Your task to perform on an android device: toggle show notifications on the lock screen Image 0: 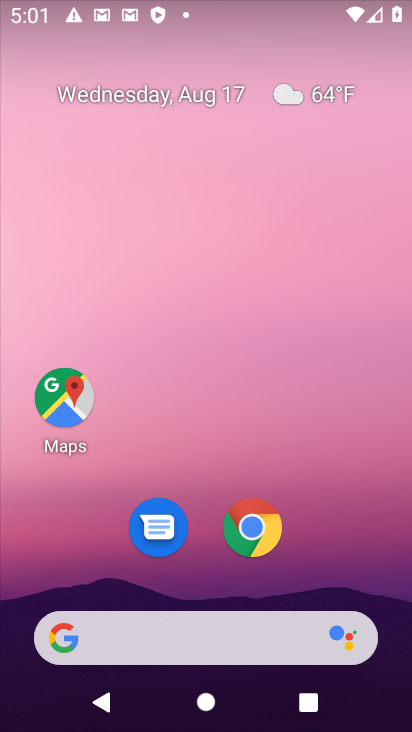
Step 0: drag from (172, 576) to (154, 181)
Your task to perform on an android device: toggle show notifications on the lock screen Image 1: 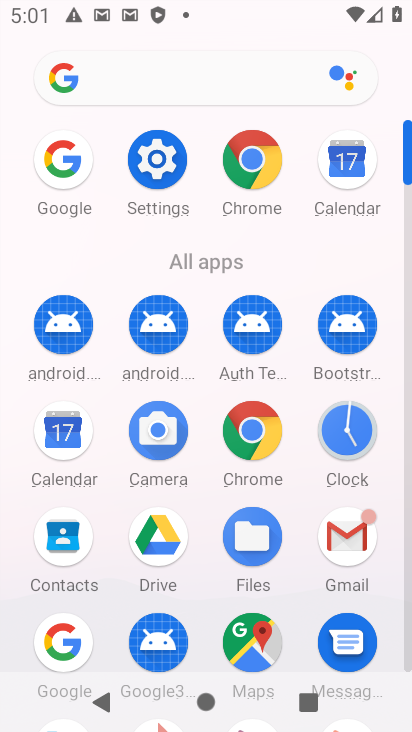
Step 1: click (156, 154)
Your task to perform on an android device: toggle show notifications on the lock screen Image 2: 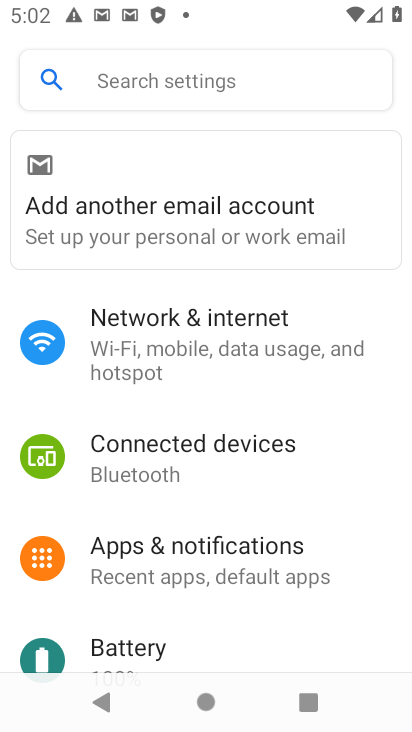
Step 2: drag from (139, 642) to (80, 333)
Your task to perform on an android device: toggle show notifications on the lock screen Image 3: 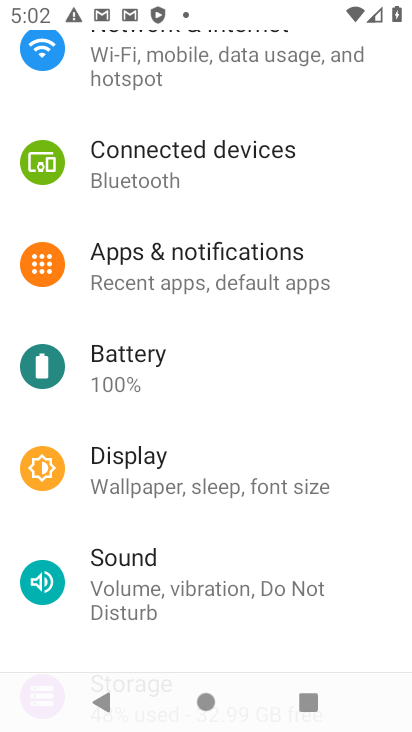
Step 3: drag from (89, 643) to (85, 294)
Your task to perform on an android device: toggle show notifications on the lock screen Image 4: 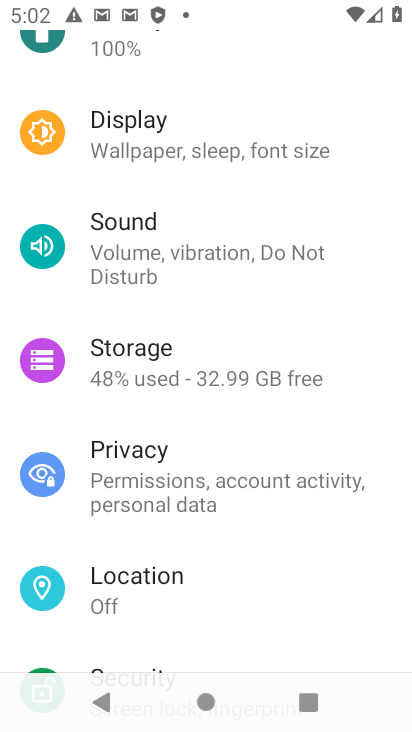
Step 4: drag from (150, 604) to (142, 339)
Your task to perform on an android device: toggle show notifications on the lock screen Image 5: 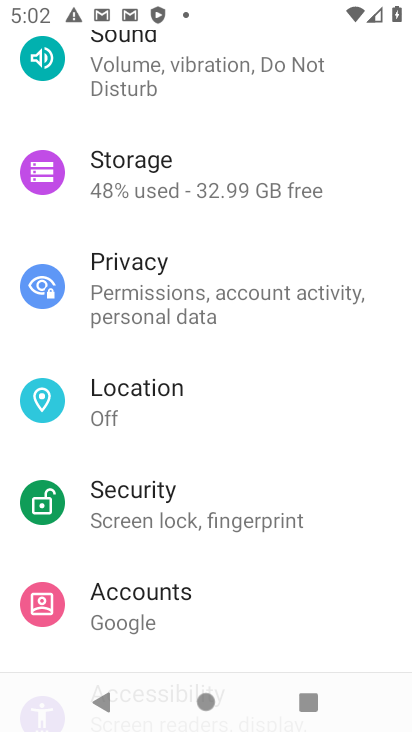
Step 5: click (146, 278)
Your task to perform on an android device: toggle show notifications on the lock screen Image 6: 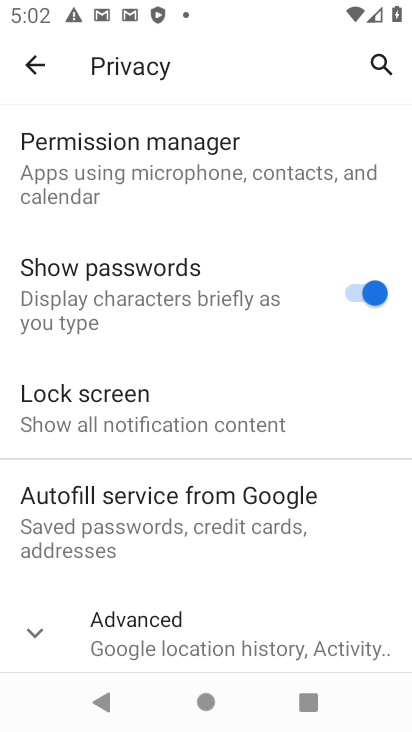
Step 6: click (73, 418)
Your task to perform on an android device: toggle show notifications on the lock screen Image 7: 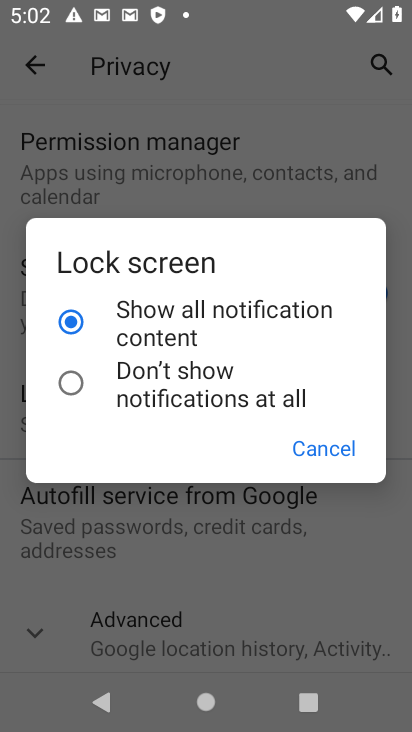
Step 7: click (202, 371)
Your task to perform on an android device: toggle show notifications on the lock screen Image 8: 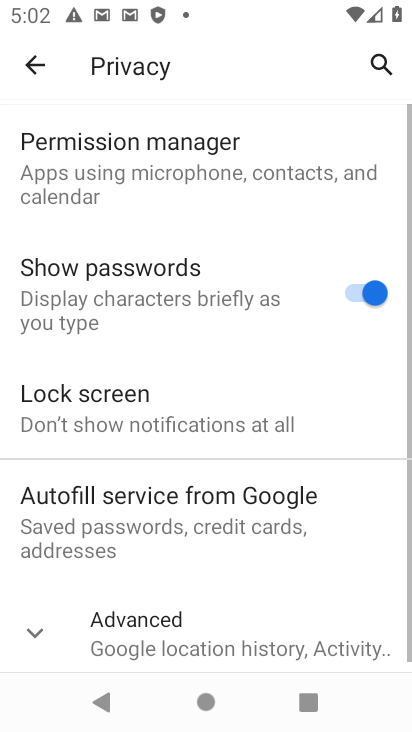
Step 8: task complete